Your task to perform on an android device: Go to privacy settings Image 0: 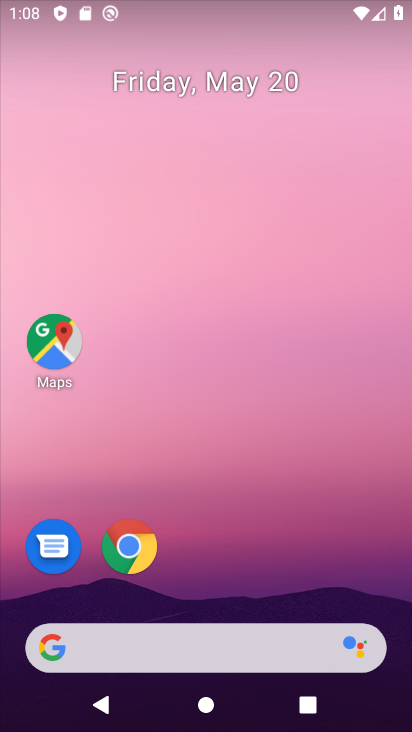
Step 0: drag from (26, 600) to (278, 159)
Your task to perform on an android device: Go to privacy settings Image 1: 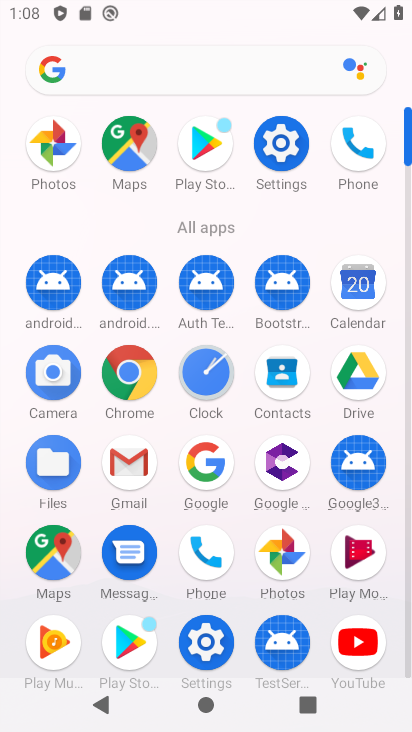
Step 1: click (283, 133)
Your task to perform on an android device: Go to privacy settings Image 2: 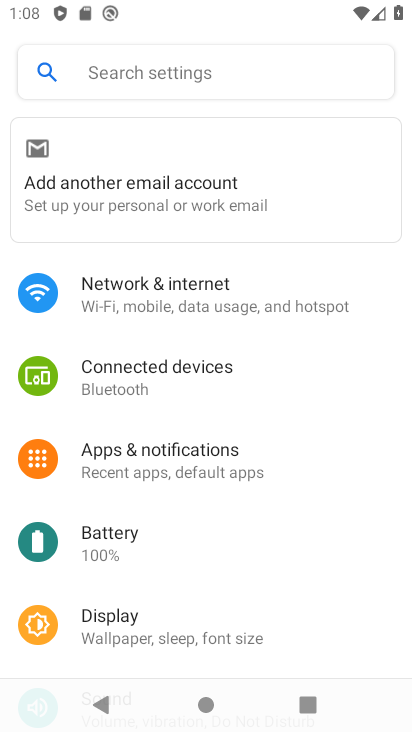
Step 2: drag from (21, 646) to (212, 247)
Your task to perform on an android device: Go to privacy settings Image 3: 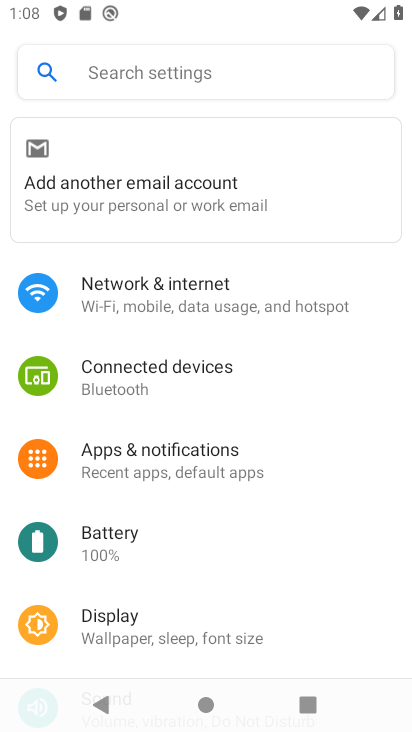
Step 3: drag from (9, 642) to (284, 152)
Your task to perform on an android device: Go to privacy settings Image 4: 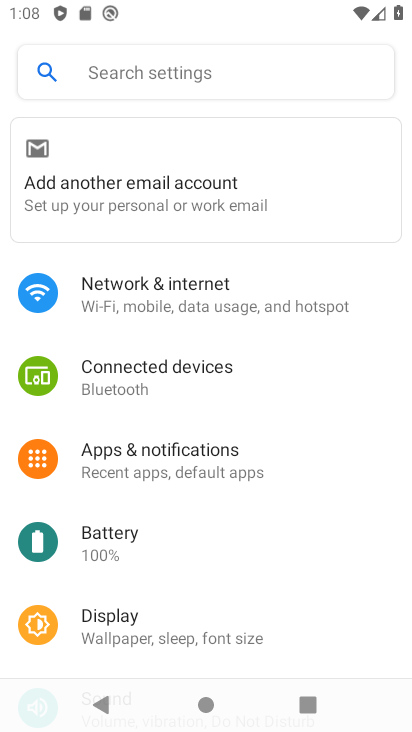
Step 4: drag from (52, 478) to (264, 143)
Your task to perform on an android device: Go to privacy settings Image 5: 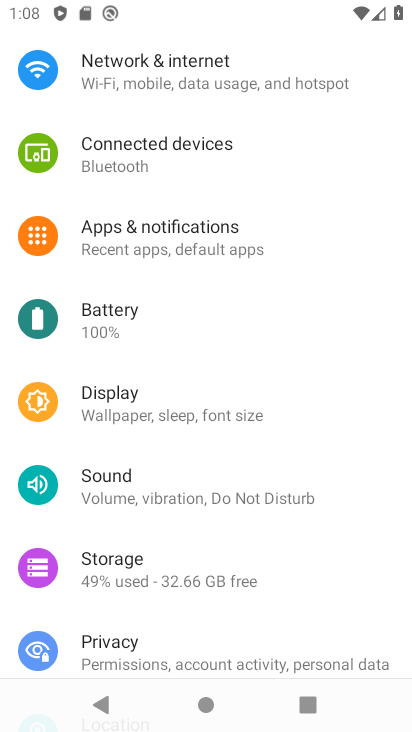
Step 5: click (113, 640)
Your task to perform on an android device: Go to privacy settings Image 6: 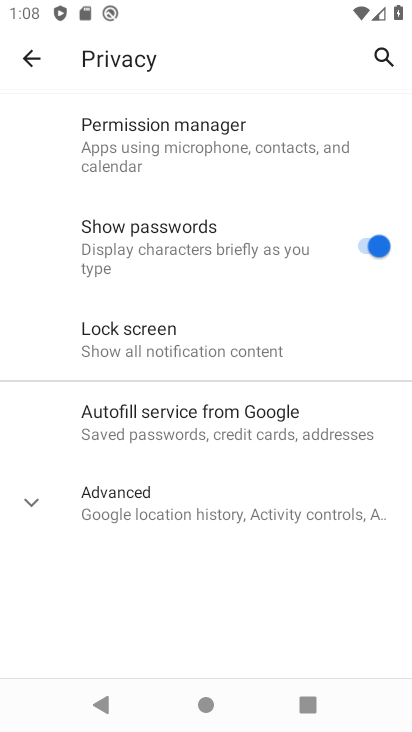
Step 6: task complete